Your task to perform on an android device: check android version Image 0: 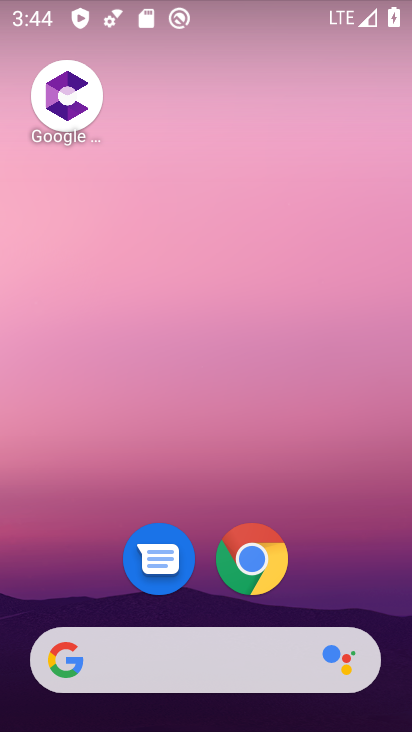
Step 0: drag from (313, 533) to (256, 52)
Your task to perform on an android device: check android version Image 1: 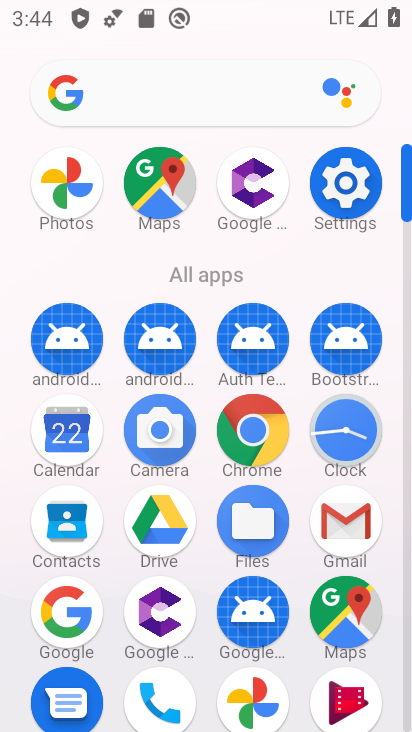
Step 1: click (336, 198)
Your task to perform on an android device: check android version Image 2: 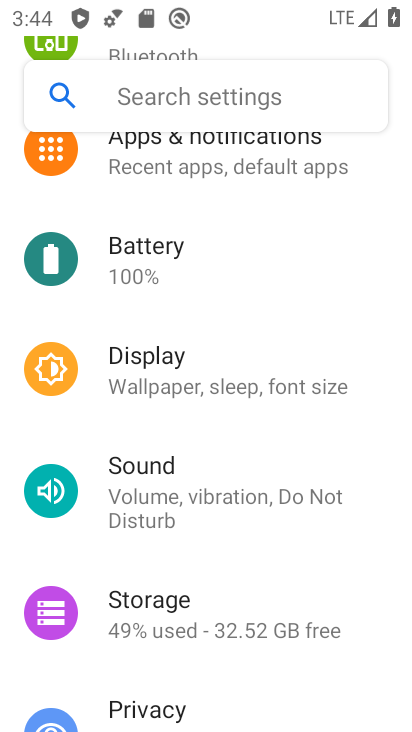
Step 2: drag from (256, 573) to (262, 4)
Your task to perform on an android device: check android version Image 3: 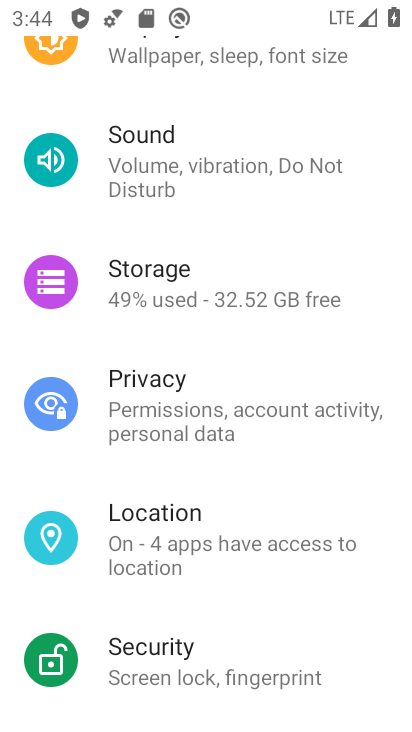
Step 3: drag from (236, 613) to (231, 103)
Your task to perform on an android device: check android version Image 4: 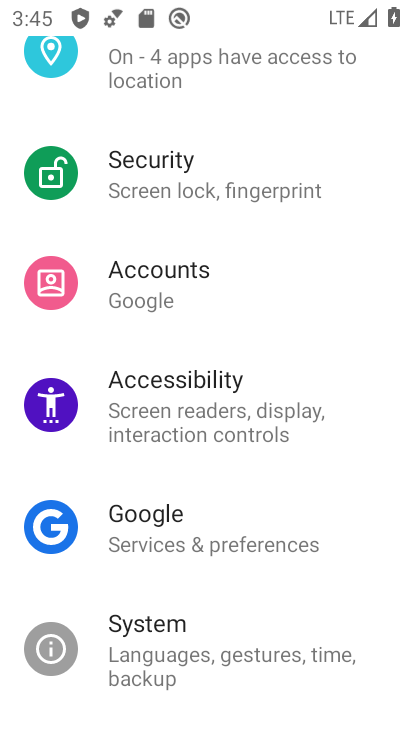
Step 4: drag from (233, 601) to (198, 129)
Your task to perform on an android device: check android version Image 5: 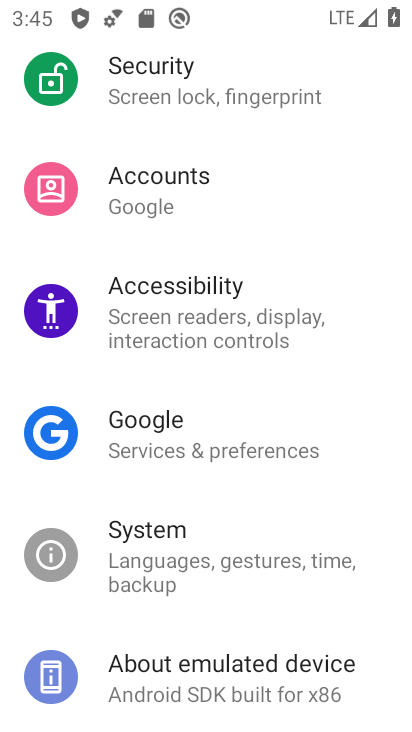
Step 5: click (204, 691)
Your task to perform on an android device: check android version Image 6: 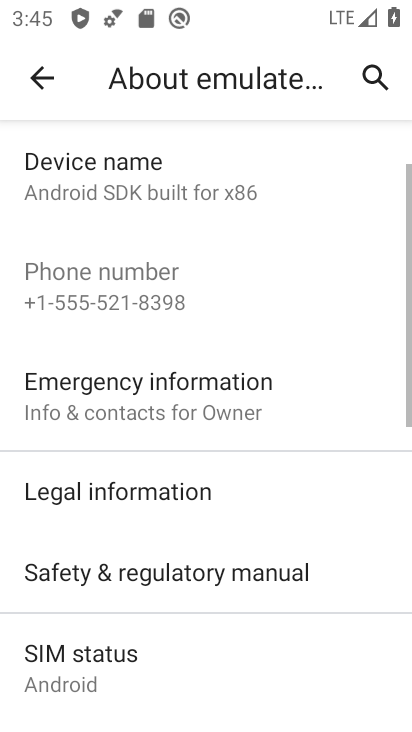
Step 6: drag from (207, 671) to (176, 251)
Your task to perform on an android device: check android version Image 7: 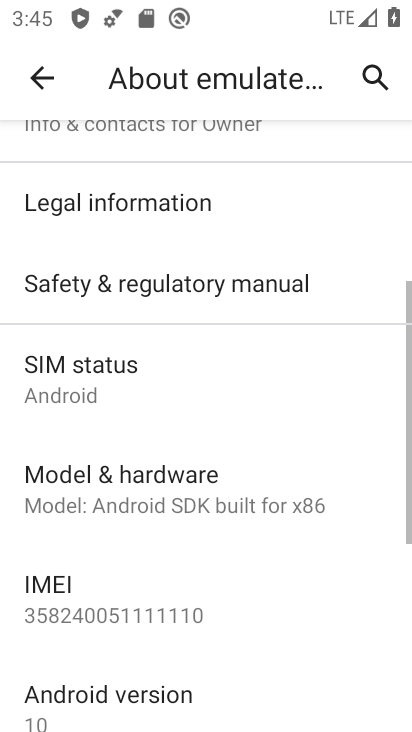
Step 7: click (157, 701)
Your task to perform on an android device: check android version Image 8: 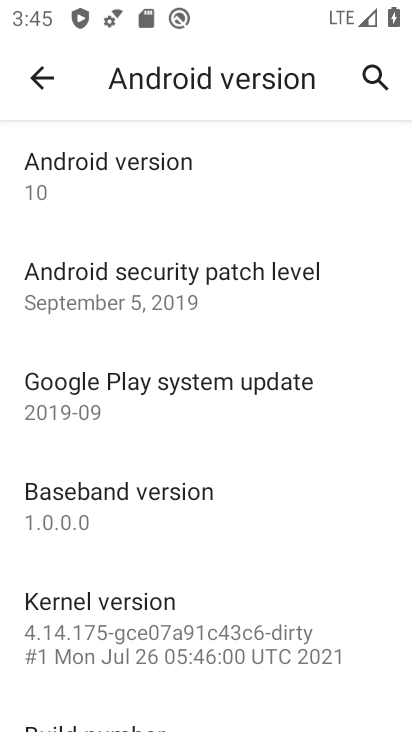
Step 8: task complete